Your task to perform on an android device: Open Chrome and go to settings Image 0: 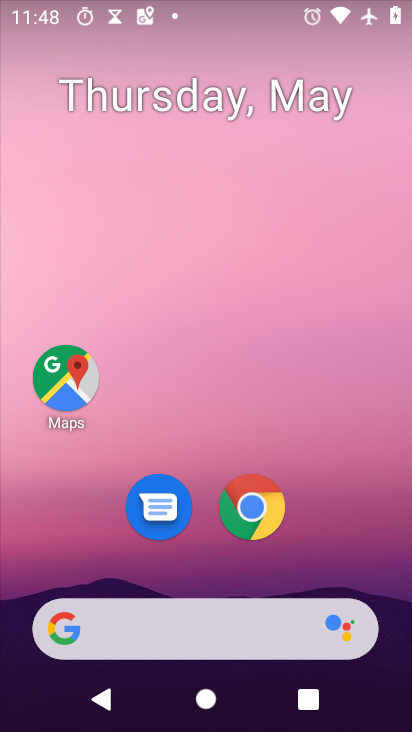
Step 0: drag from (317, 535) to (279, 0)
Your task to perform on an android device: Open Chrome and go to settings Image 1: 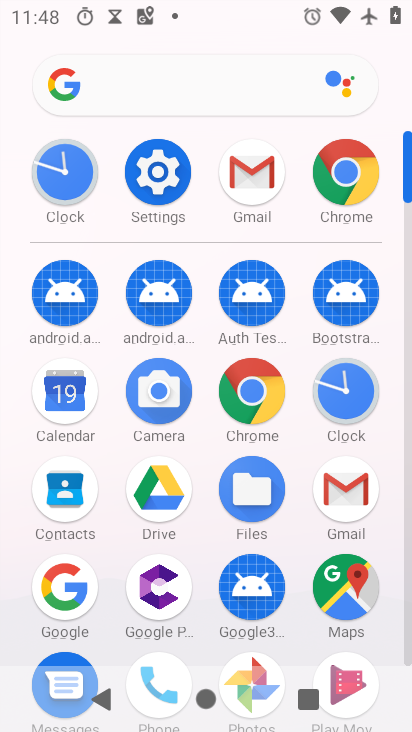
Step 1: drag from (2, 589) to (23, 239)
Your task to perform on an android device: Open Chrome and go to settings Image 2: 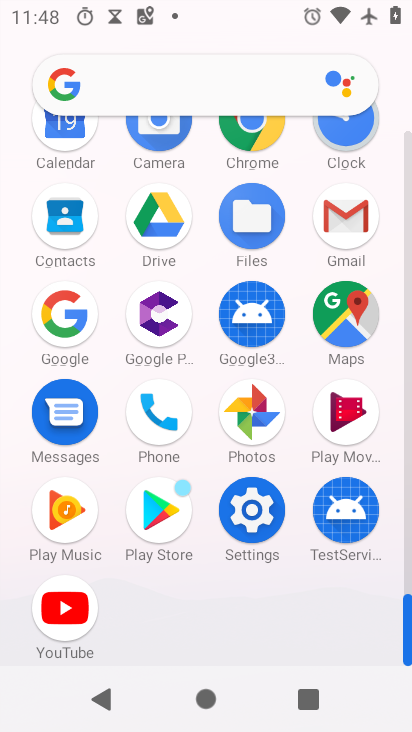
Step 2: click (254, 510)
Your task to perform on an android device: Open Chrome and go to settings Image 3: 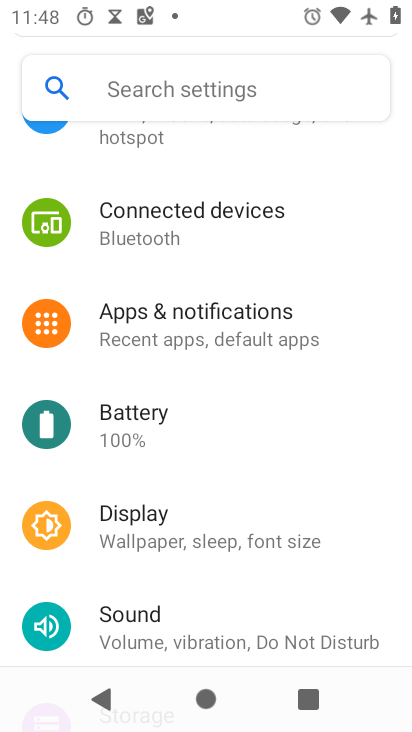
Step 3: press back button
Your task to perform on an android device: Open Chrome and go to settings Image 4: 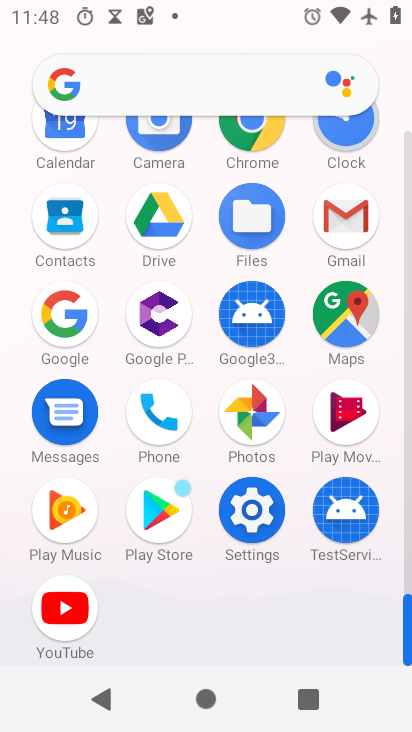
Step 4: click (244, 125)
Your task to perform on an android device: Open Chrome and go to settings Image 5: 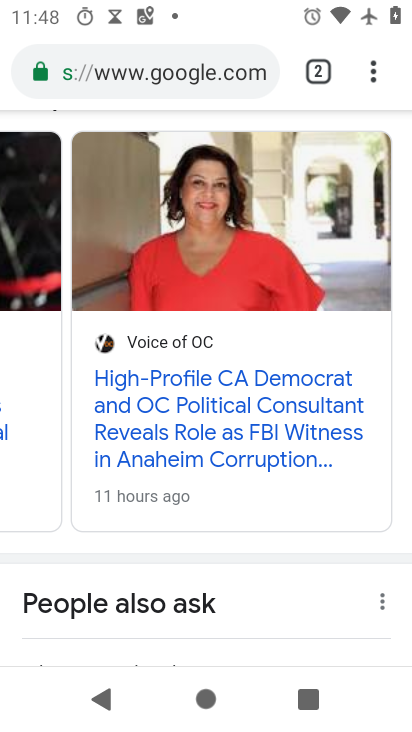
Step 5: task complete